Your task to perform on an android device: Go to display settings Image 0: 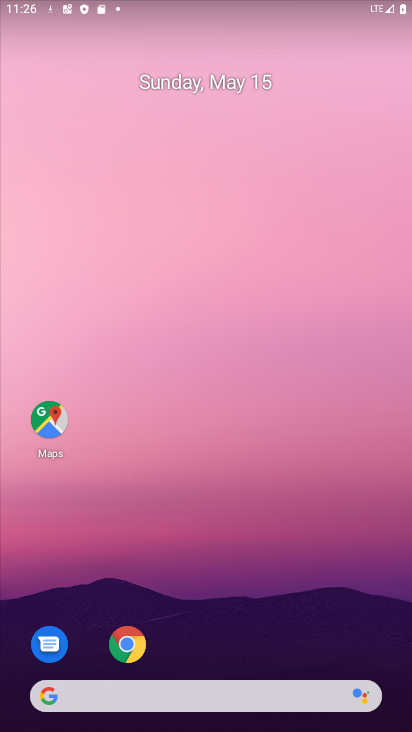
Step 0: drag from (203, 710) to (158, 261)
Your task to perform on an android device: Go to display settings Image 1: 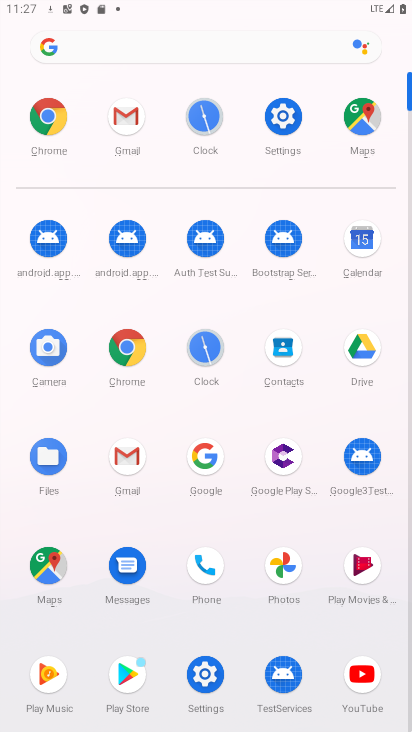
Step 1: click (300, 125)
Your task to perform on an android device: Go to display settings Image 2: 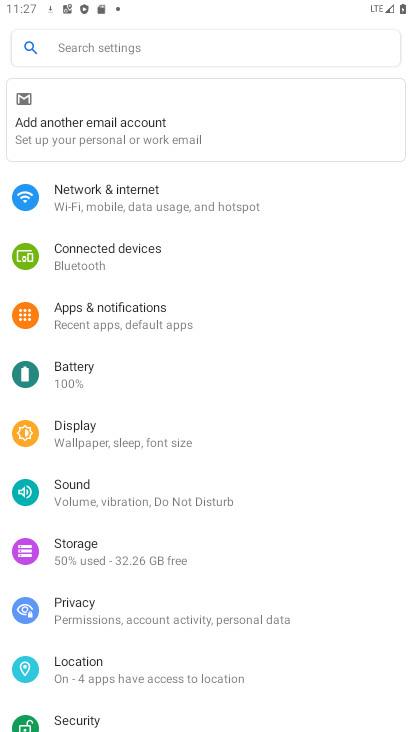
Step 2: click (130, 428)
Your task to perform on an android device: Go to display settings Image 3: 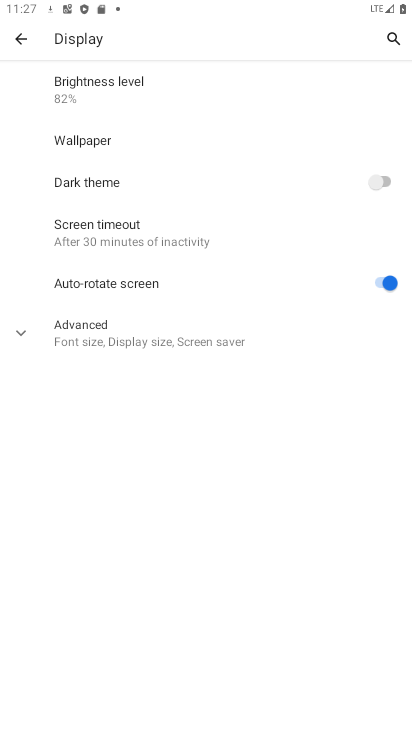
Step 3: click (18, 341)
Your task to perform on an android device: Go to display settings Image 4: 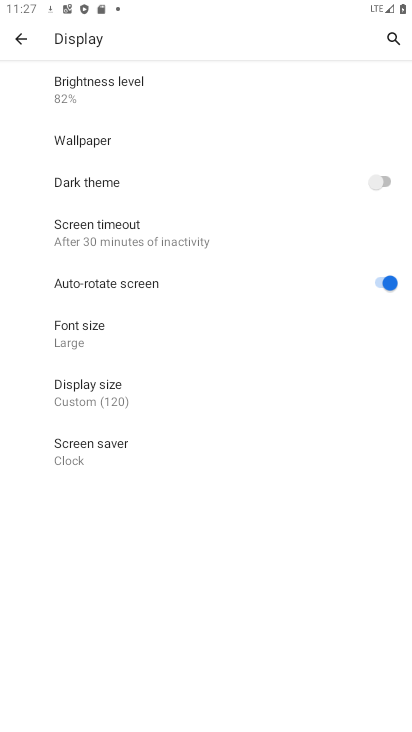
Step 4: task complete